Your task to perform on an android device: Go to Yahoo.com Image 0: 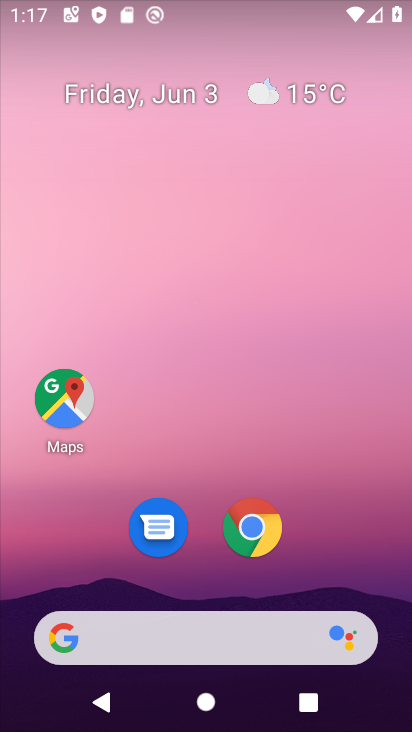
Step 0: drag from (331, 573) to (323, 534)
Your task to perform on an android device: Go to Yahoo.com Image 1: 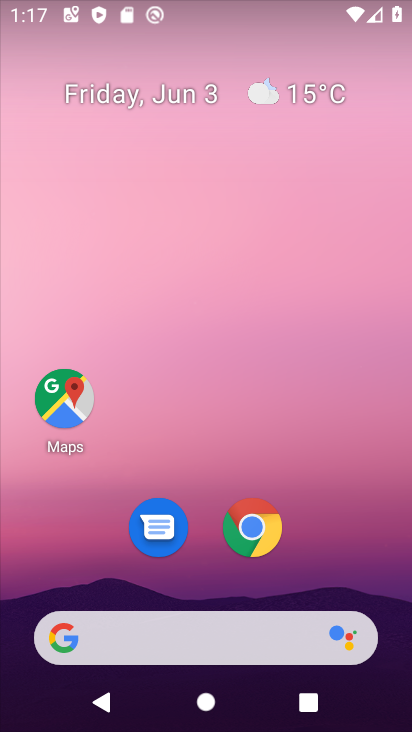
Step 1: click (264, 537)
Your task to perform on an android device: Go to Yahoo.com Image 2: 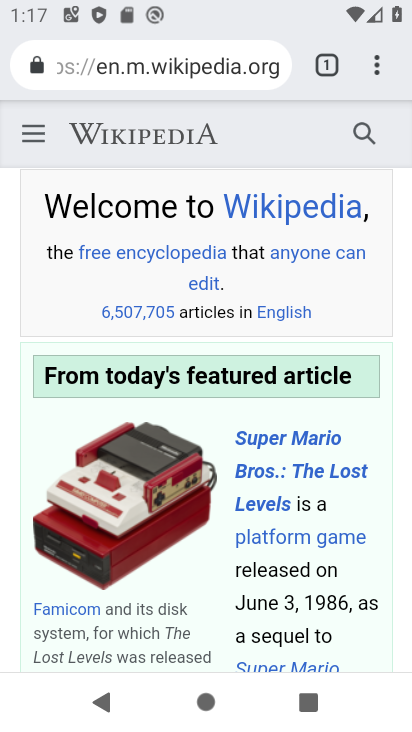
Step 2: click (221, 76)
Your task to perform on an android device: Go to Yahoo.com Image 3: 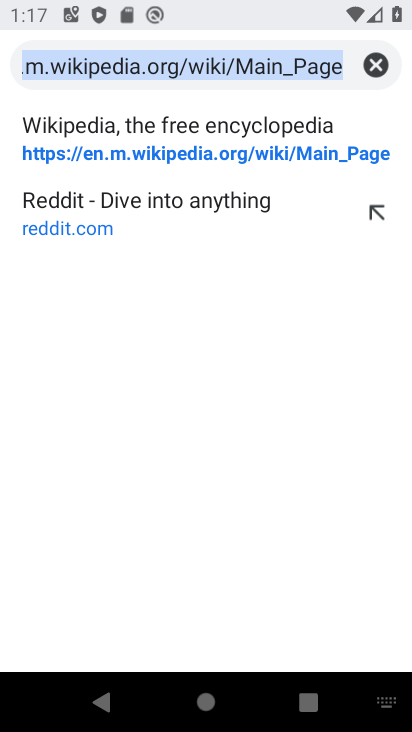
Step 3: click (372, 71)
Your task to perform on an android device: Go to Yahoo.com Image 4: 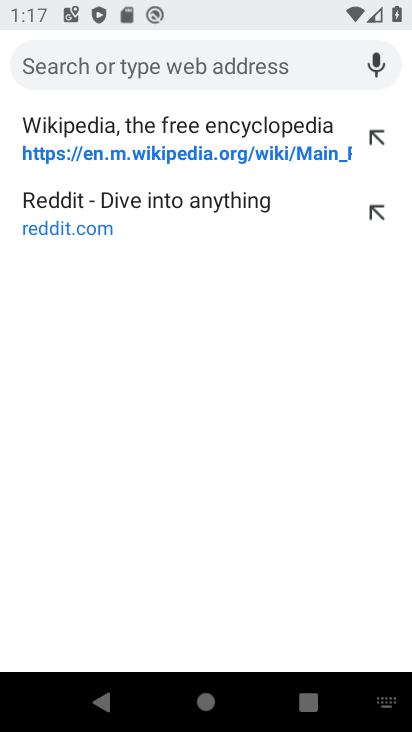
Step 4: type "yahoo"
Your task to perform on an android device: Go to Yahoo.com Image 5: 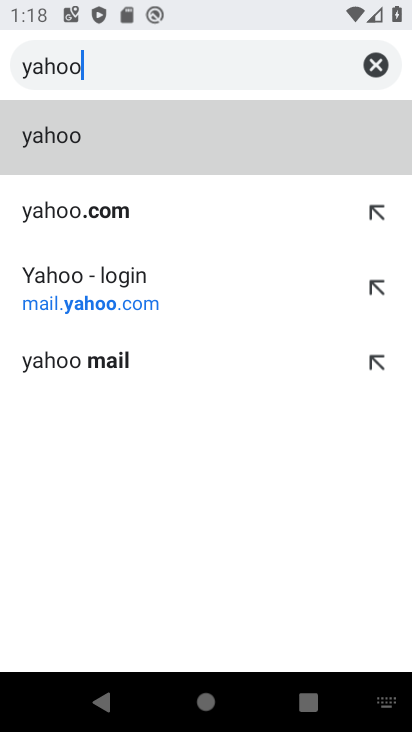
Step 5: click (156, 224)
Your task to perform on an android device: Go to Yahoo.com Image 6: 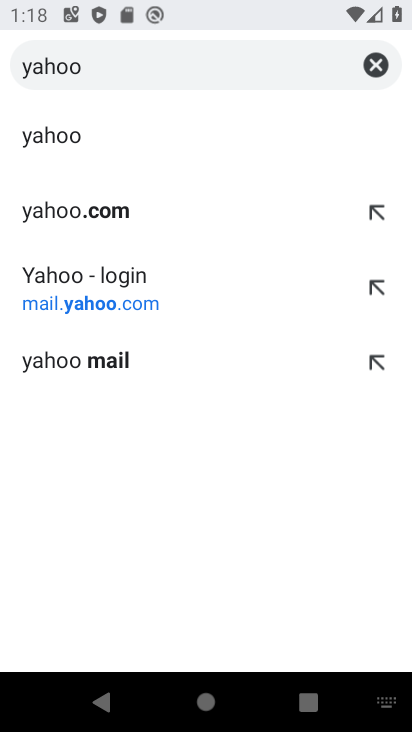
Step 6: click (154, 220)
Your task to perform on an android device: Go to Yahoo.com Image 7: 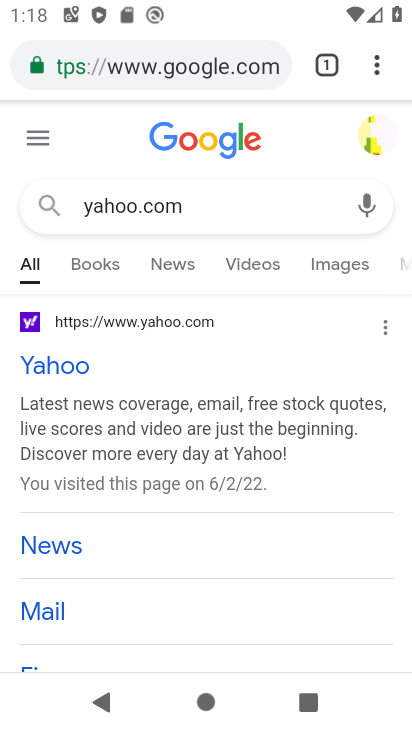
Step 7: task complete